Your task to perform on an android device: check google app version Image 0: 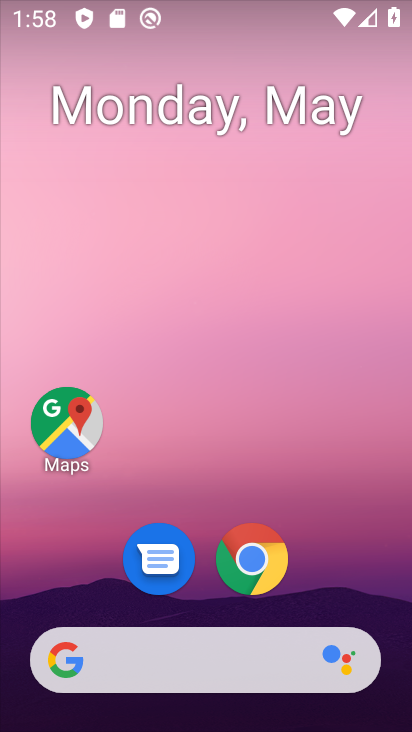
Step 0: click (377, 328)
Your task to perform on an android device: check google app version Image 1: 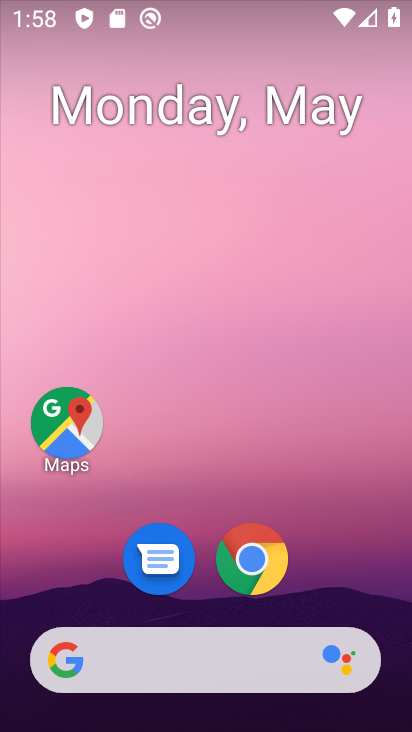
Step 1: drag from (383, 619) to (358, 0)
Your task to perform on an android device: check google app version Image 2: 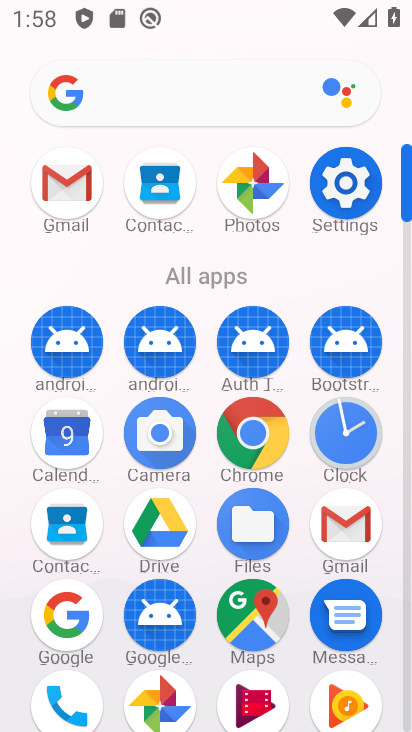
Step 2: click (68, 625)
Your task to perform on an android device: check google app version Image 3: 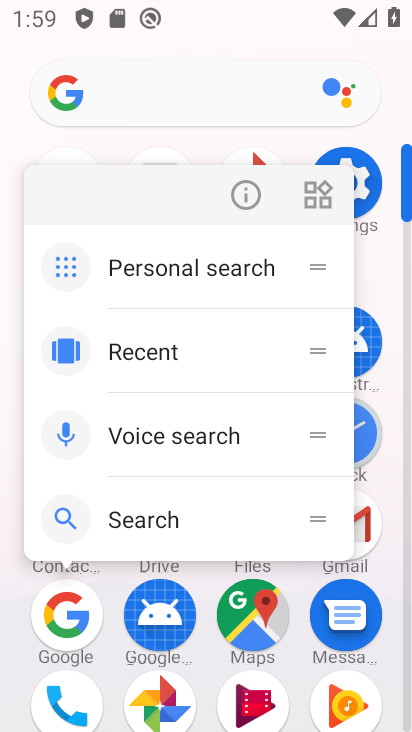
Step 3: click (245, 194)
Your task to perform on an android device: check google app version Image 4: 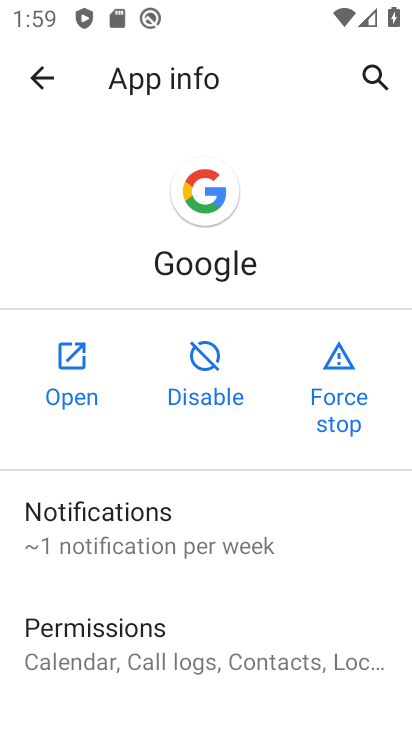
Step 4: drag from (222, 620) to (247, 117)
Your task to perform on an android device: check google app version Image 5: 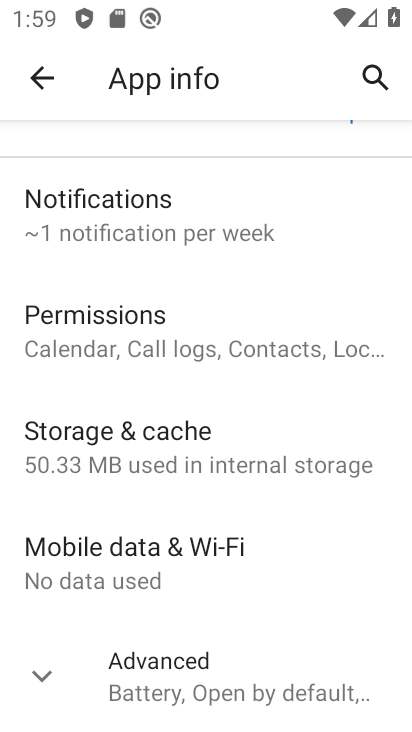
Step 5: drag from (189, 635) to (195, 313)
Your task to perform on an android device: check google app version Image 6: 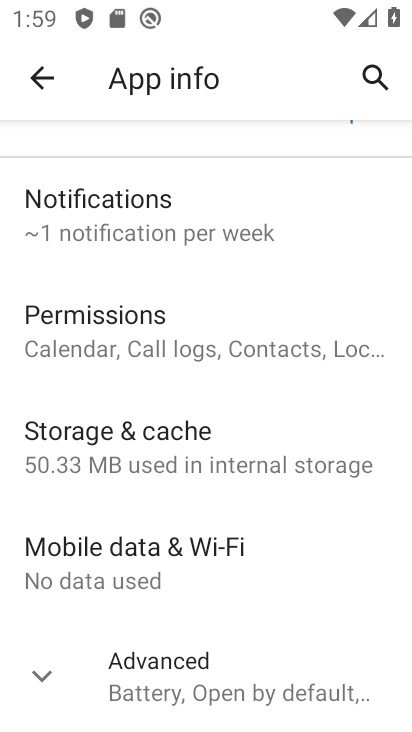
Step 6: click (36, 691)
Your task to perform on an android device: check google app version Image 7: 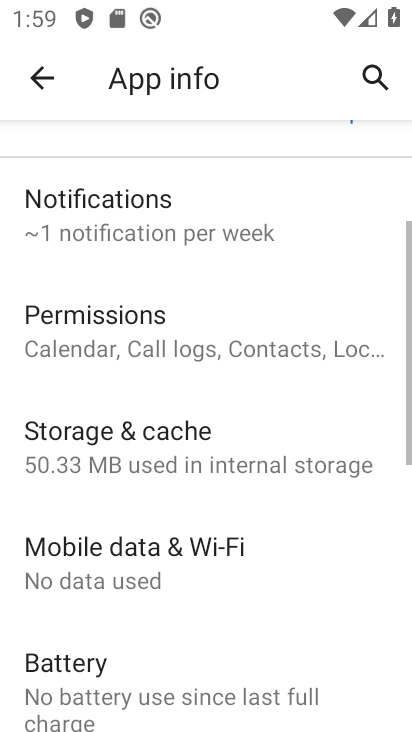
Step 7: task complete